Your task to perform on an android device: change timer sound Image 0: 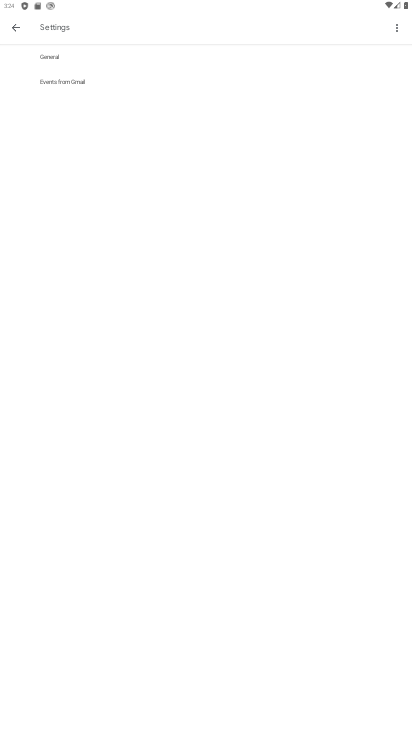
Step 0: press home button
Your task to perform on an android device: change timer sound Image 1: 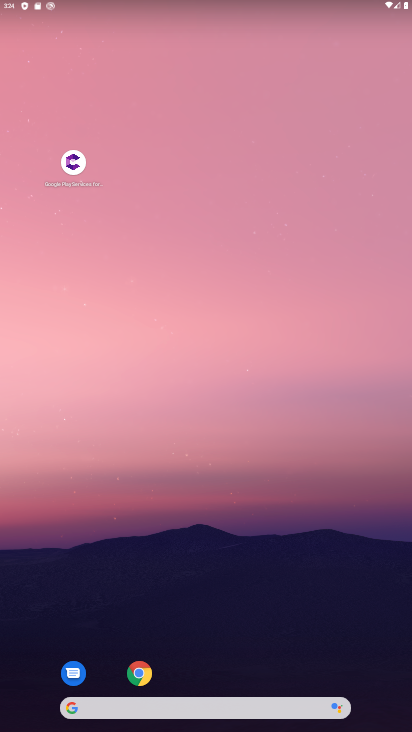
Step 1: drag from (205, 657) to (211, 113)
Your task to perform on an android device: change timer sound Image 2: 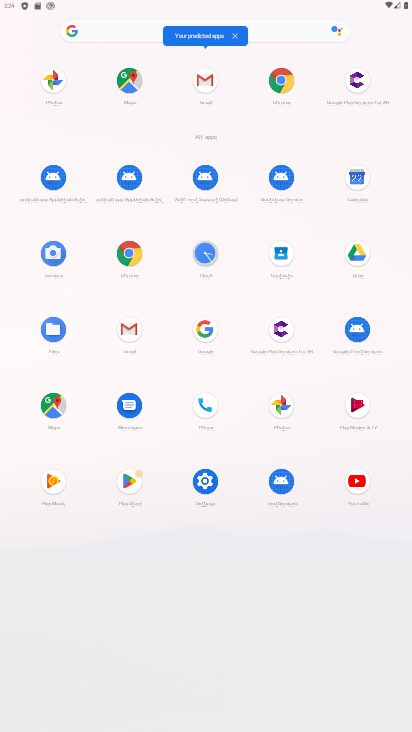
Step 2: click (203, 271)
Your task to perform on an android device: change timer sound Image 3: 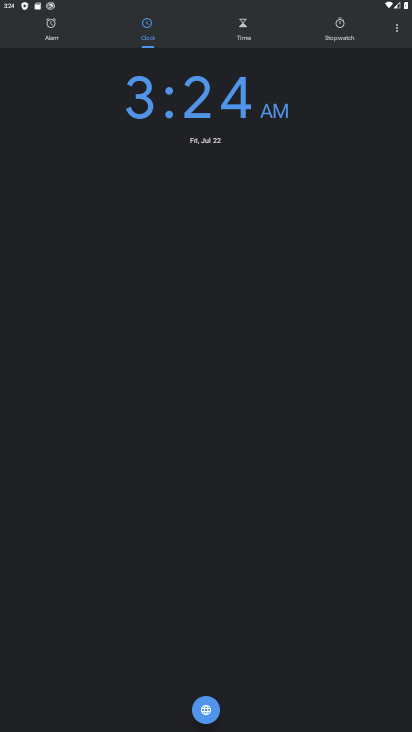
Step 3: click (397, 30)
Your task to perform on an android device: change timer sound Image 4: 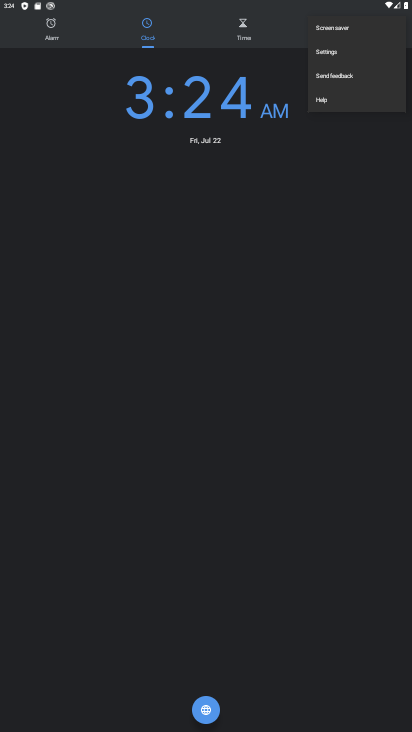
Step 4: click (329, 54)
Your task to perform on an android device: change timer sound Image 5: 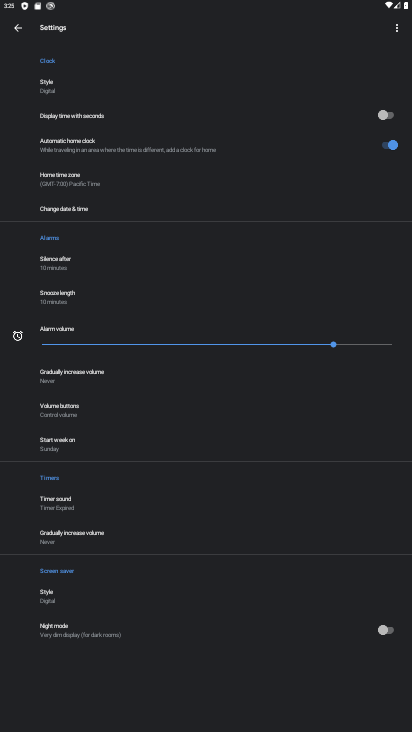
Step 5: click (61, 503)
Your task to perform on an android device: change timer sound Image 6: 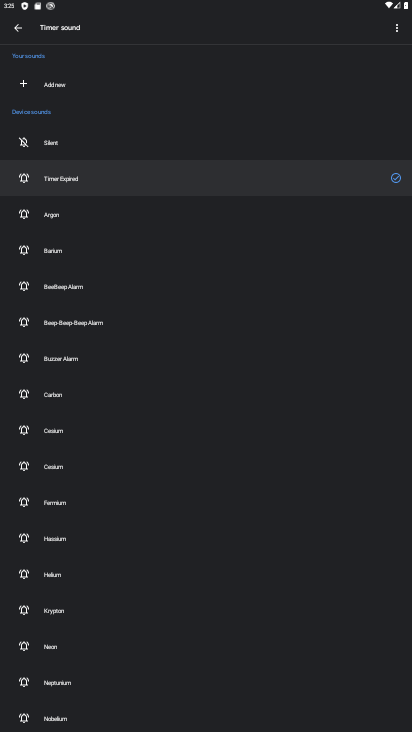
Step 6: click (61, 214)
Your task to perform on an android device: change timer sound Image 7: 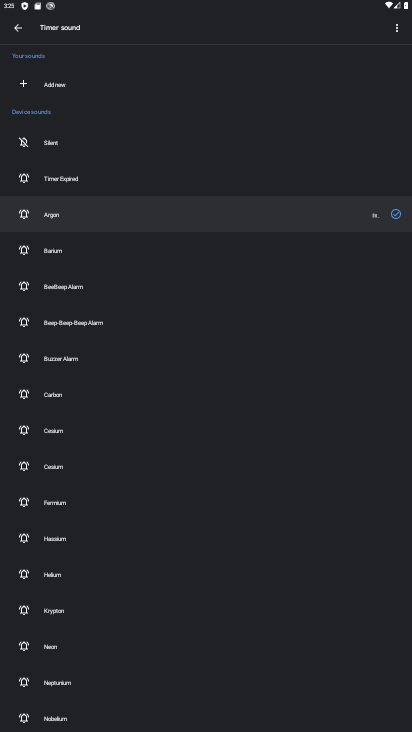
Step 7: task complete